Your task to perform on an android device: Go to calendar. Show me events next week Image 0: 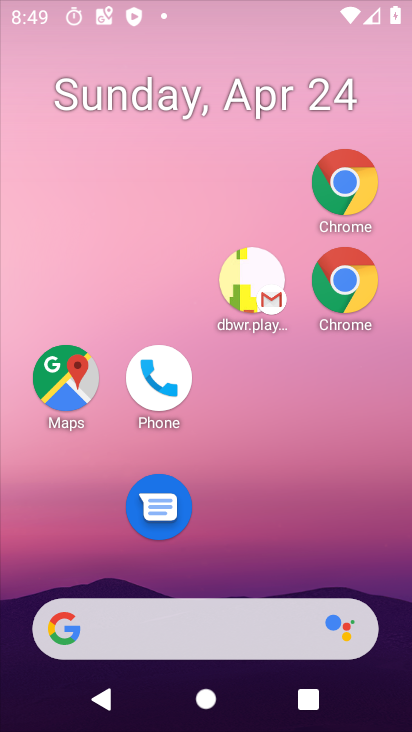
Step 0: drag from (184, 280) to (144, 92)
Your task to perform on an android device: Go to calendar. Show me events next week Image 1: 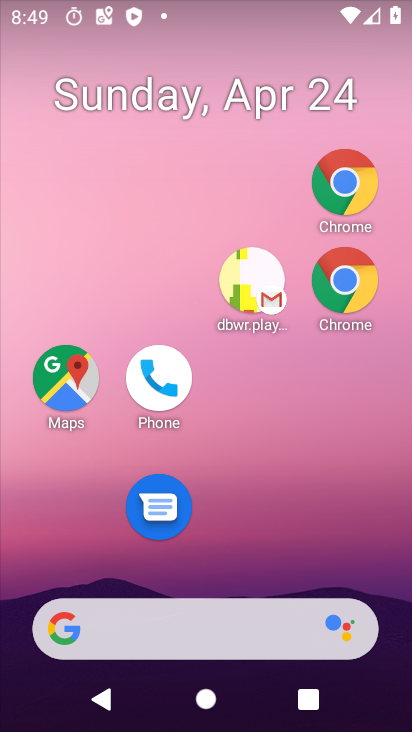
Step 1: drag from (256, 670) to (261, 25)
Your task to perform on an android device: Go to calendar. Show me events next week Image 2: 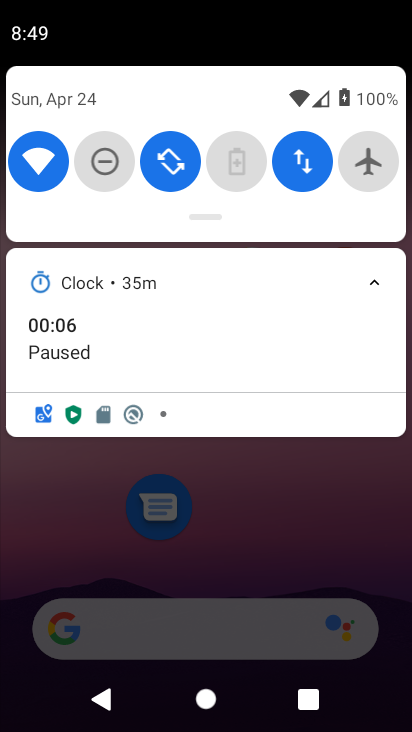
Step 2: drag from (250, 547) to (215, 18)
Your task to perform on an android device: Go to calendar. Show me events next week Image 3: 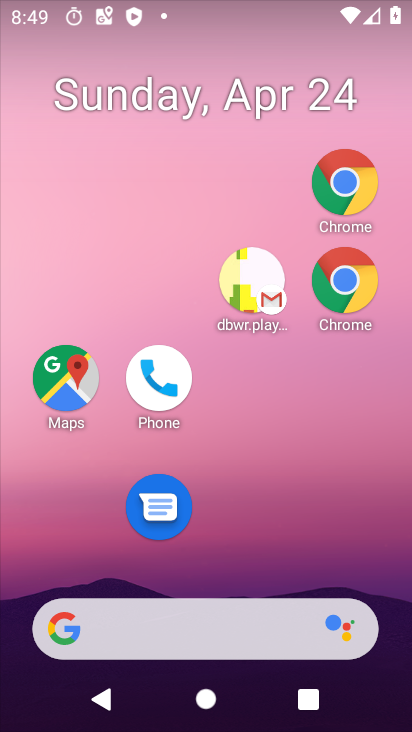
Step 3: drag from (243, 484) to (210, 21)
Your task to perform on an android device: Go to calendar. Show me events next week Image 4: 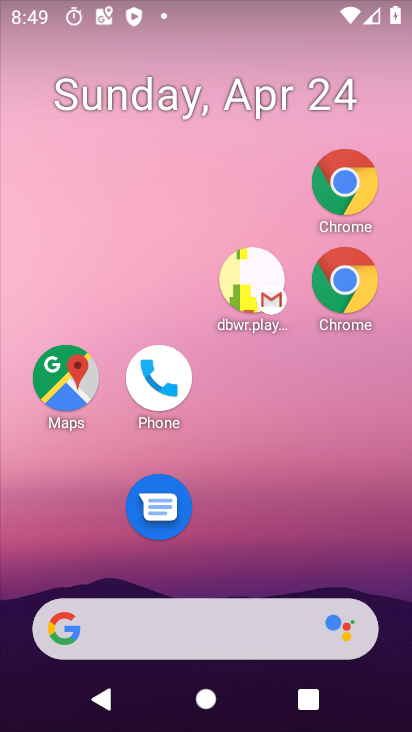
Step 4: drag from (280, 480) to (276, 3)
Your task to perform on an android device: Go to calendar. Show me events next week Image 5: 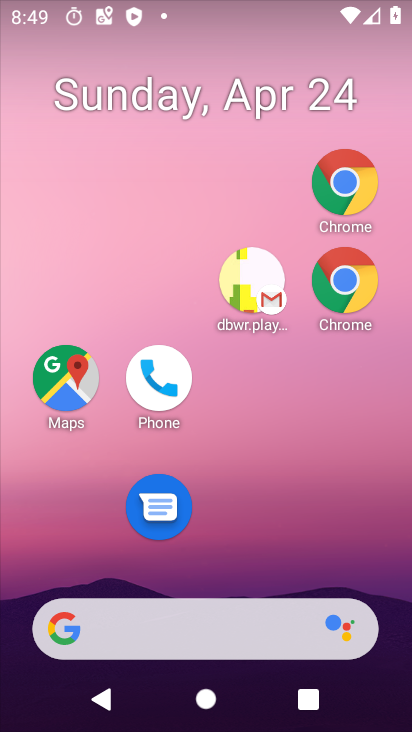
Step 5: drag from (293, 536) to (124, 14)
Your task to perform on an android device: Go to calendar. Show me events next week Image 6: 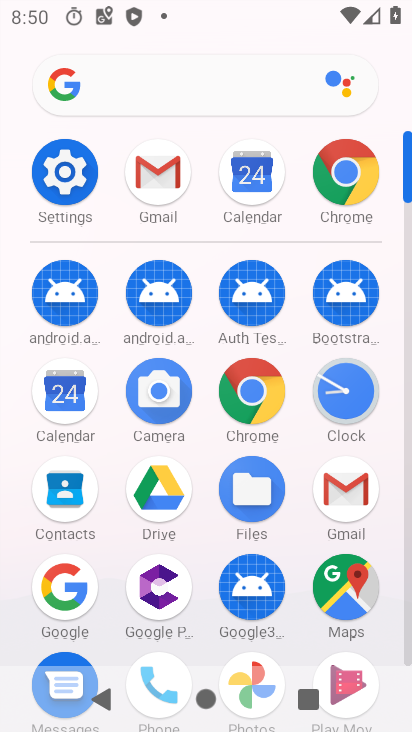
Step 6: click (60, 409)
Your task to perform on an android device: Go to calendar. Show me events next week Image 7: 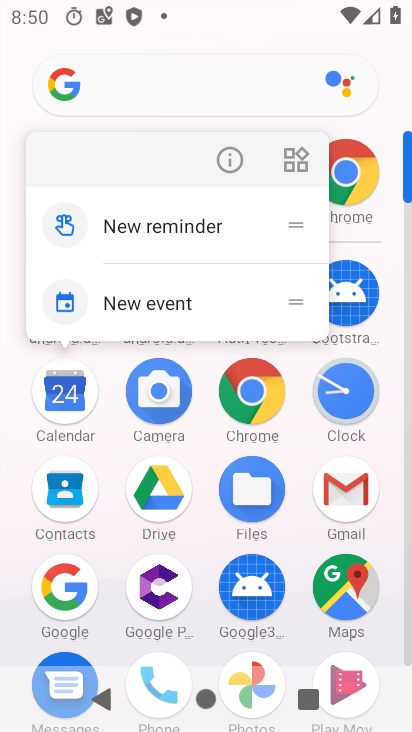
Step 7: click (66, 391)
Your task to perform on an android device: Go to calendar. Show me events next week Image 8: 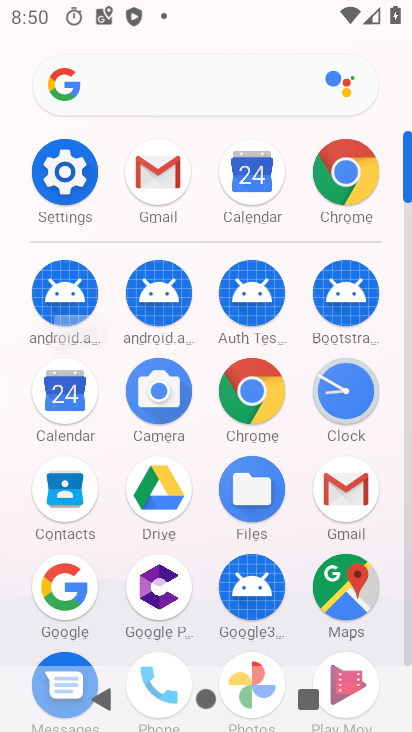
Step 8: click (69, 390)
Your task to perform on an android device: Go to calendar. Show me events next week Image 9: 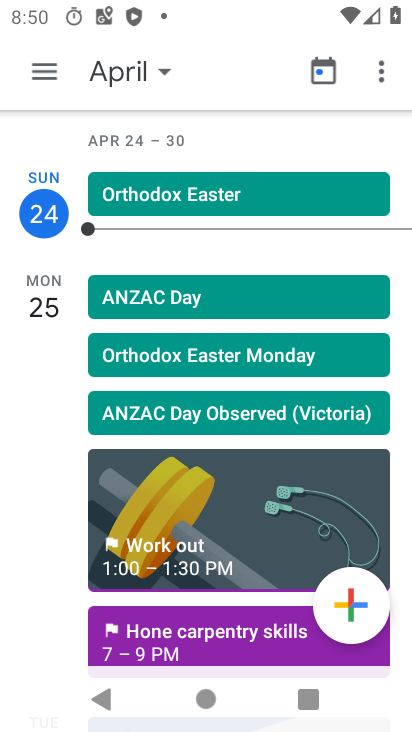
Step 9: click (150, 74)
Your task to perform on an android device: Go to calendar. Show me events next week Image 10: 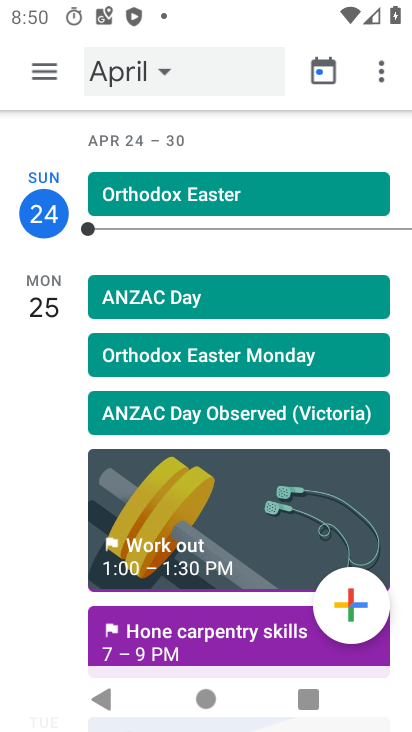
Step 10: click (156, 69)
Your task to perform on an android device: Go to calendar. Show me events next week Image 11: 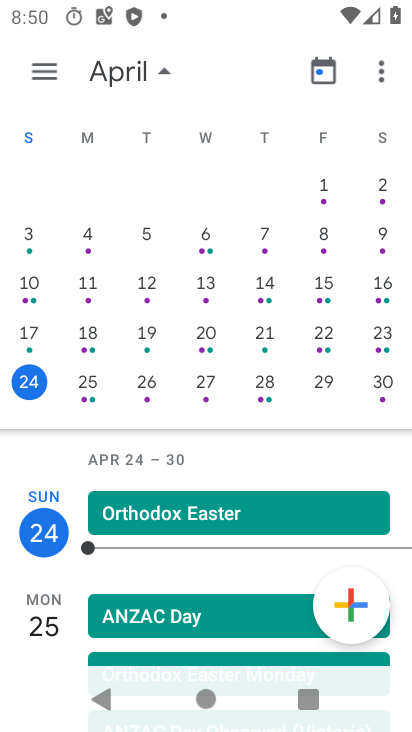
Step 11: click (164, 66)
Your task to perform on an android device: Go to calendar. Show me events next week Image 12: 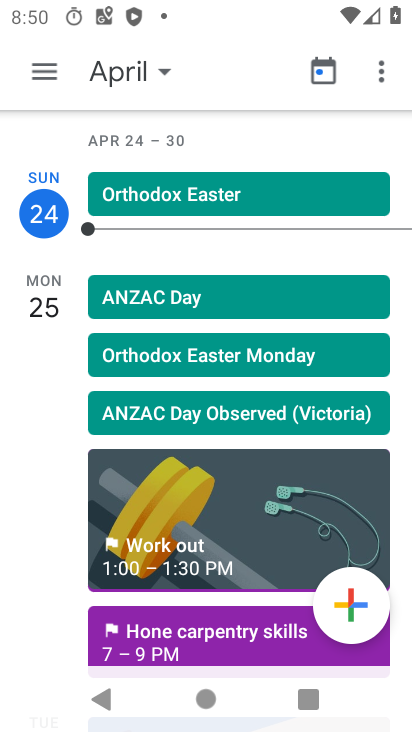
Step 12: click (163, 71)
Your task to perform on an android device: Go to calendar. Show me events next week Image 13: 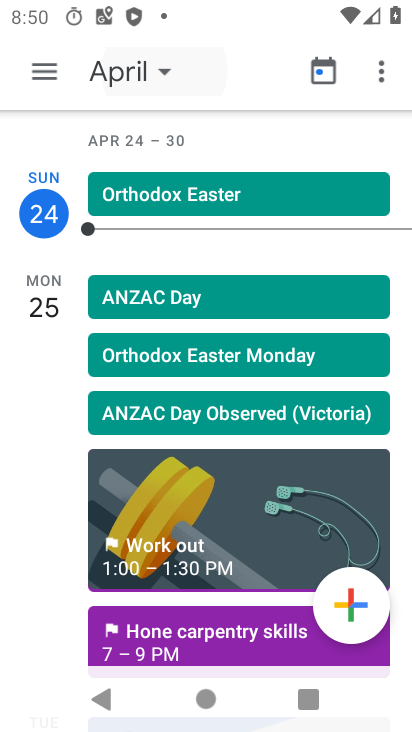
Step 13: click (163, 71)
Your task to perform on an android device: Go to calendar. Show me events next week Image 14: 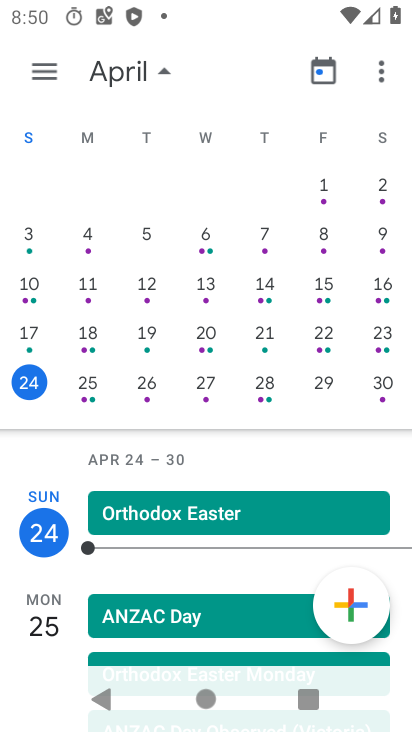
Step 14: drag from (225, 320) to (34, 323)
Your task to perform on an android device: Go to calendar. Show me events next week Image 15: 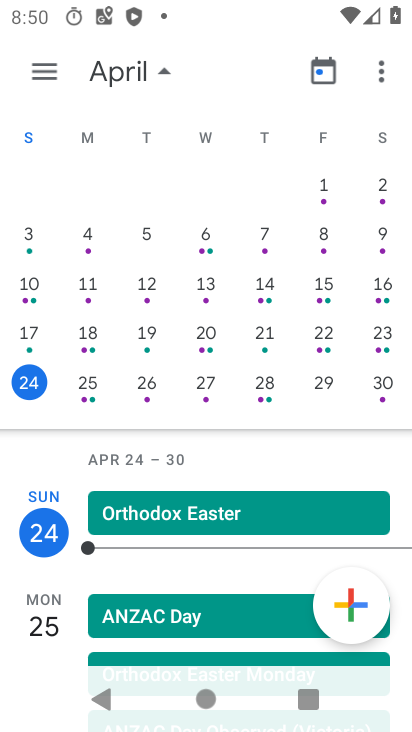
Step 15: drag from (200, 636) to (187, 38)
Your task to perform on an android device: Go to calendar. Show me events next week Image 16: 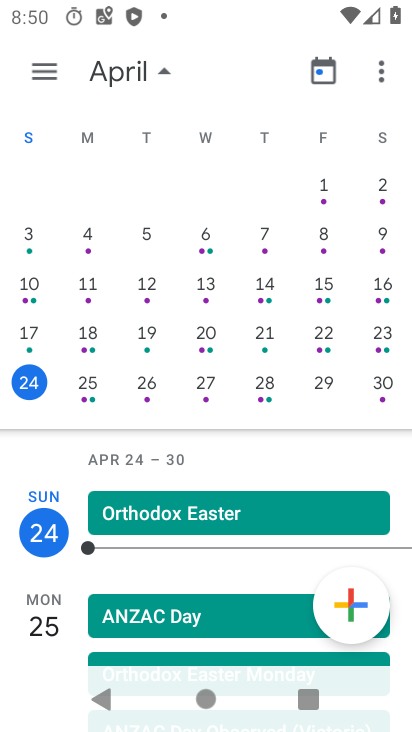
Step 16: drag from (200, 498) to (77, 2)
Your task to perform on an android device: Go to calendar. Show me events next week Image 17: 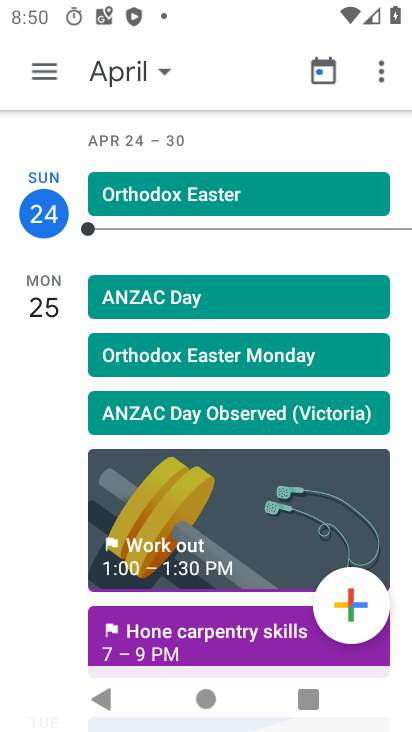
Step 17: drag from (181, 539) to (96, 58)
Your task to perform on an android device: Go to calendar. Show me events next week Image 18: 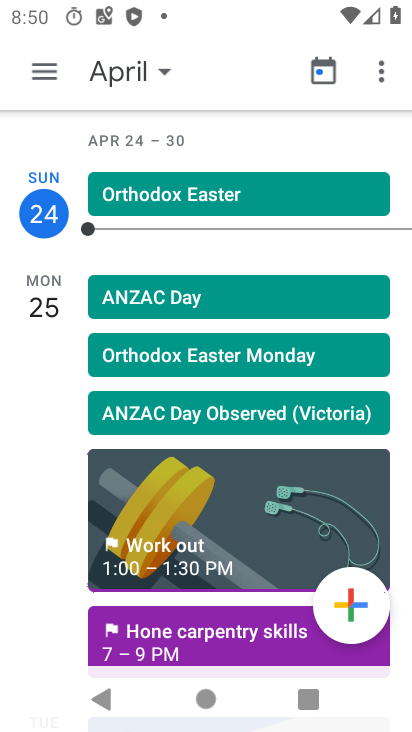
Step 18: drag from (210, 511) to (181, 35)
Your task to perform on an android device: Go to calendar. Show me events next week Image 19: 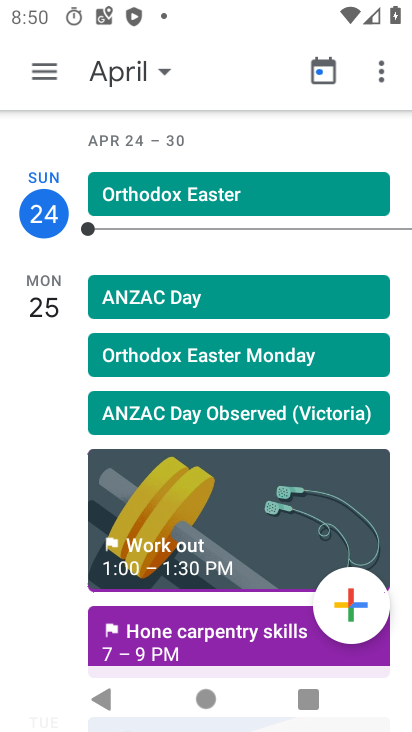
Step 19: drag from (165, 384) to (134, 165)
Your task to perform on an android device: Go to calendar. Show me events next week Image 20: 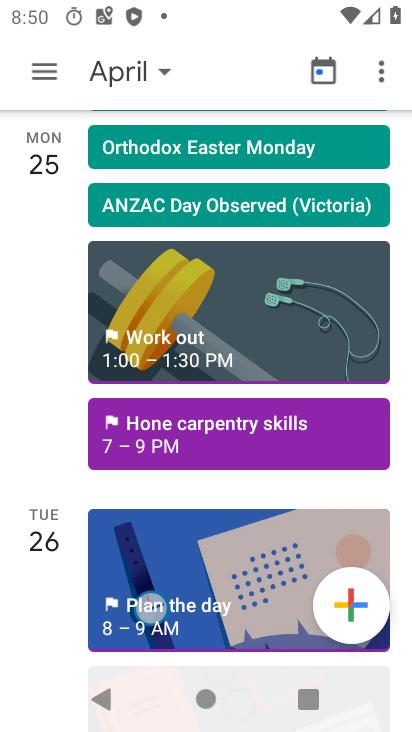
Step 20: click (188, 137)
Your task to perform on an android device: Go to calendar. Show me events next week Image 21: 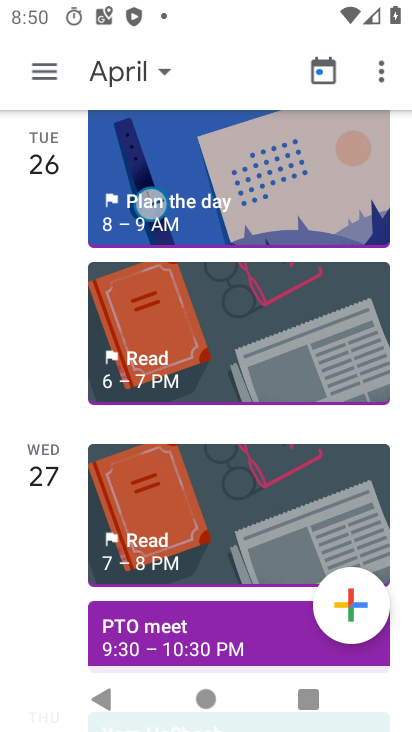
Step 21: click (161, 71)
Your task to perform on an android device: Go to calendar. Show me events next week Image 22: 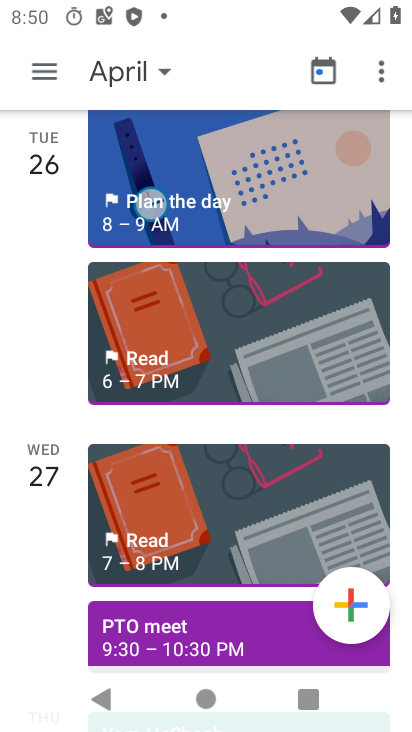
Step 22: task complete